Your task to perform on an android device: turn off improve location accuracy Image 0: 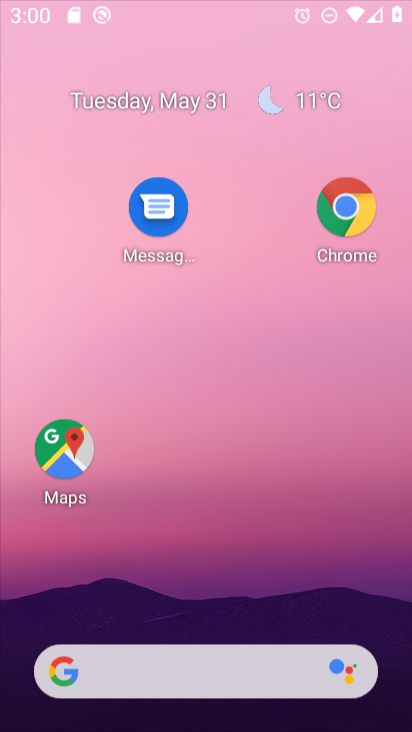
Step 0: drag from (244, 132) to (241, 0)
Your task to perform on an android device: turn off improve location accuracy Image 1: 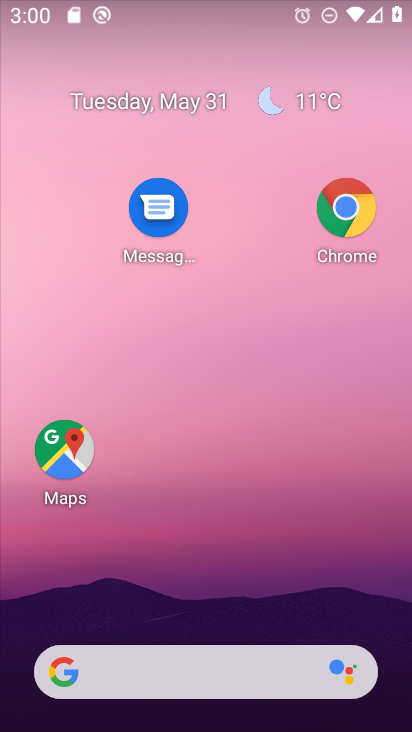
Step 1: drag from (194, 484) to (234, 0)
Your task to perform on an android device: turn off improve location accuracy Image 2: 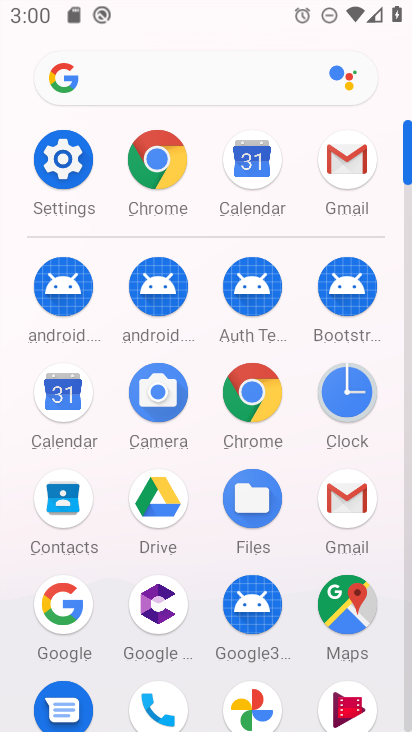
Step 2: click (63, 150)
Your task to perform on an android device: turn off improve location accuracy Image 3: 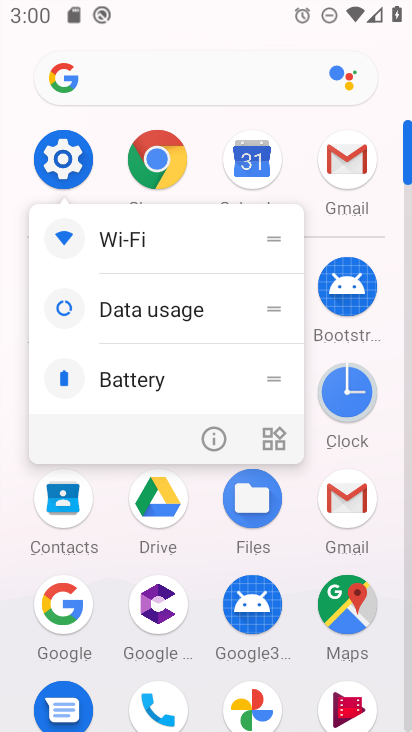
Step 3: click (216, 431)
Your task to perform on an android device: turn off improve location accuracy Image 4: 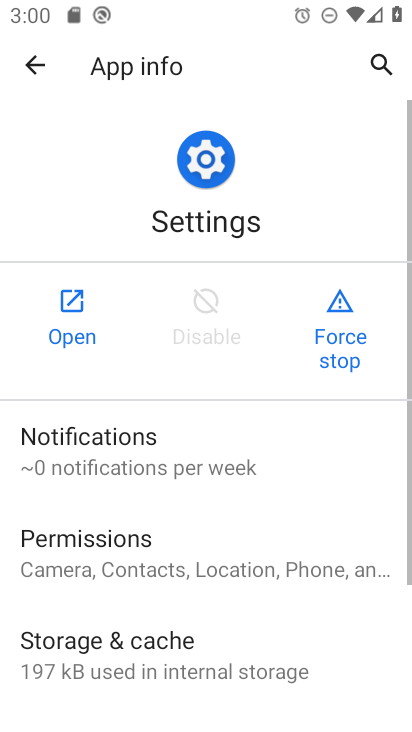
Step 4: click (75, 345)
Your task to perform on an android device: turn off improve location accuracy Image 5: 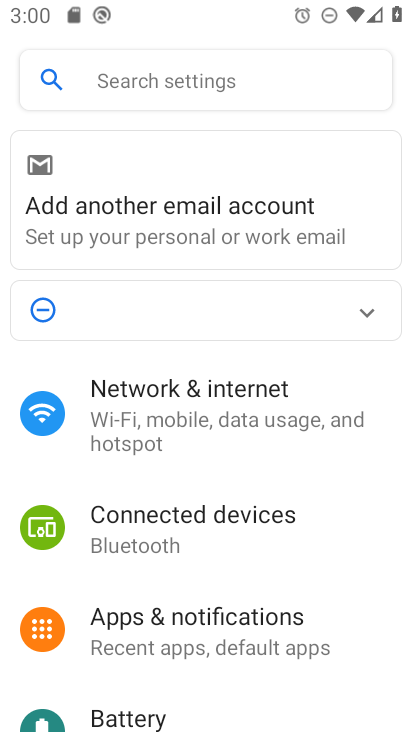
Step 5: drag from (161, 518) to (289, 1)
Your task to perform on an android device: turn off improve location accuracy Image 6: 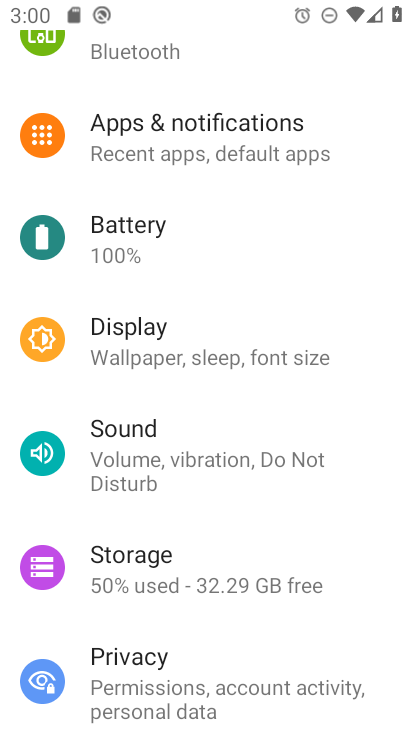
Step 6: drag from (147, 532) to (188, 126)
Your task to perform on an android device: turn off improve location accuracy Image 7: 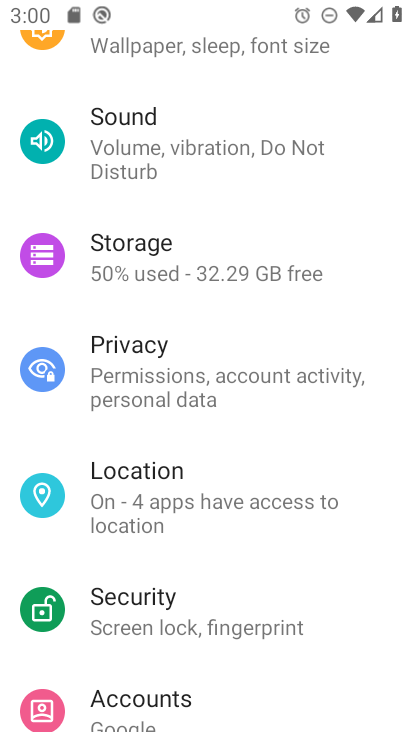
Step 7: click (142, 487)
Your task to perform on an android device: turn off improve location accuracy Image 8: 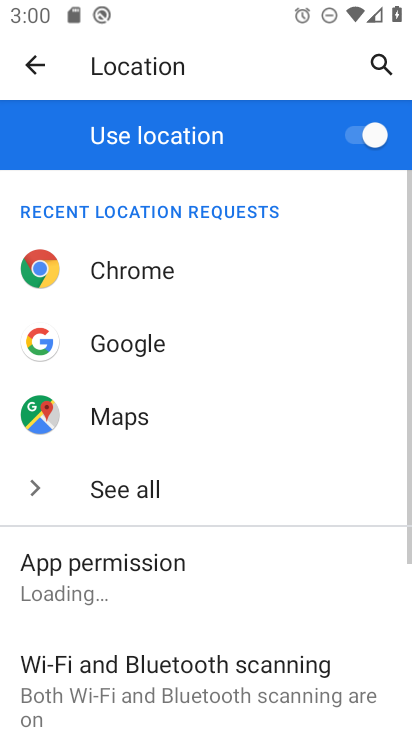
Step 8: drag from (249, 552) to (291, 171)
Your task to perform on an android device: turn off improve location accuracy Image 9: 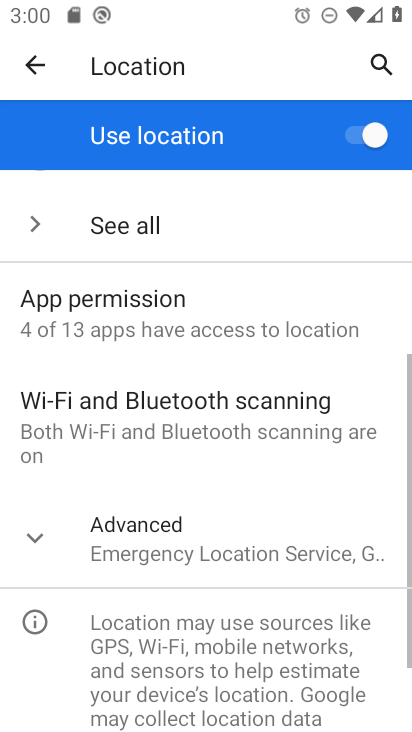
Step 9: click (207, 560)
Your task to perform on an android device: turn off improve location accuracy Image 10: 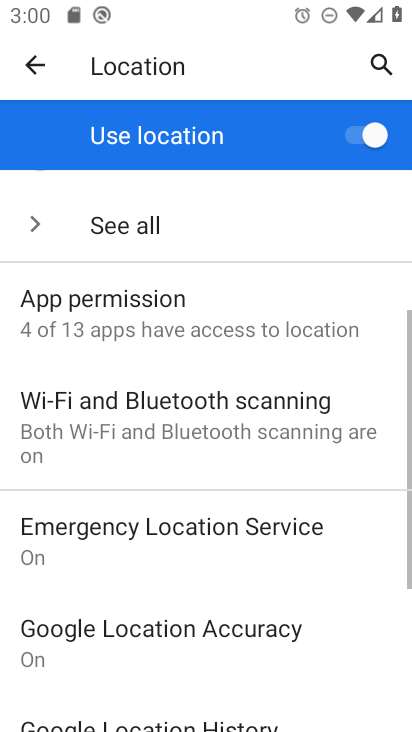
Step 10: drag from (200, 537) to (300, 146)
Your task to perform on an android device: turn off improve location accuracy Image 11: 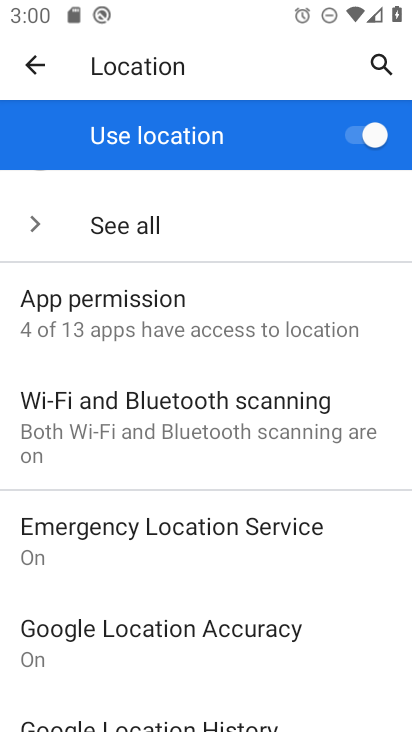
Step 11: click (176, 634)
Your task to perform on an android device: turn off improve location accuracy Image 12: 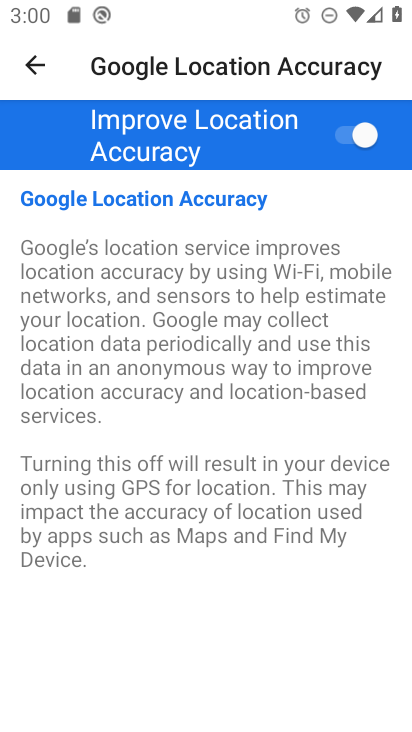
Step 12: click (350, 135)
Your task to perform on an android device: turn off improve location accuracy Image 13: 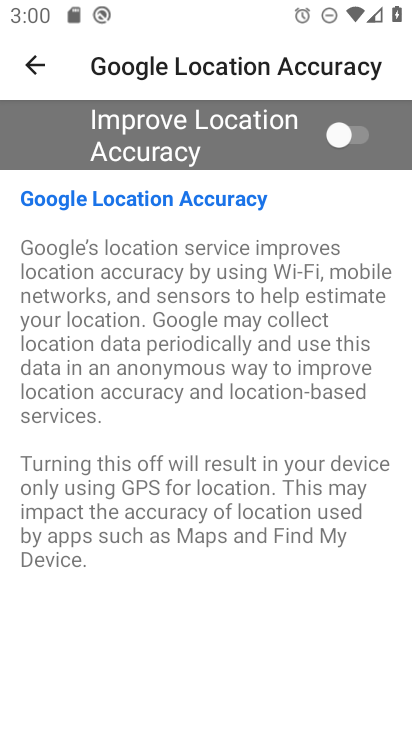
Step 13: task complete